Your task to perform on an android device: turn on translation in the chrome app Image 0: 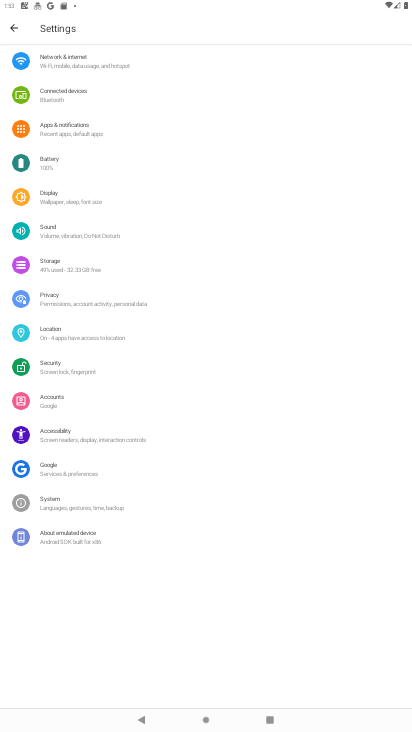
Step 0: press home button
Your task to perform on an android device: turn on translation in the chrome app Image 1: 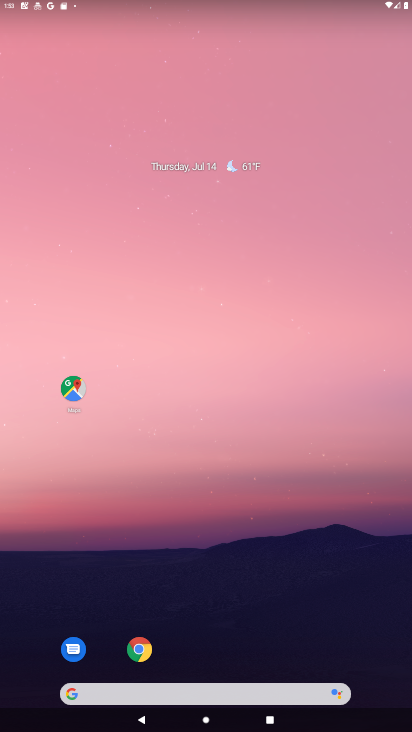
Step 1: drag from (224, 679) to (192, 130)
Your task to perform on an android device: turn on translation in the chrome app Image 2: 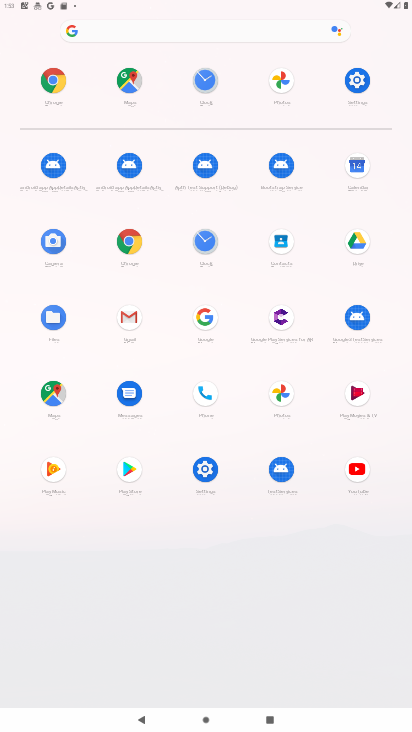
Step 2: click (120, 240)
Your task to perform on an android device: turn on translation in the chrome app Image 3: 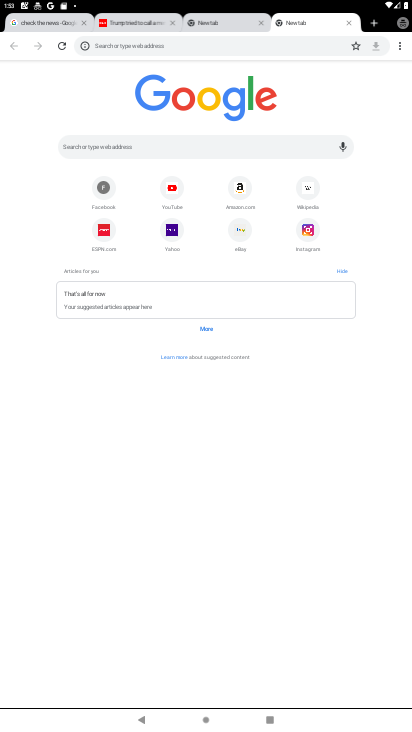
Step 3: click (394, 45)
Your task to perform on an android device: turn on translation in the chrome app Image 4: 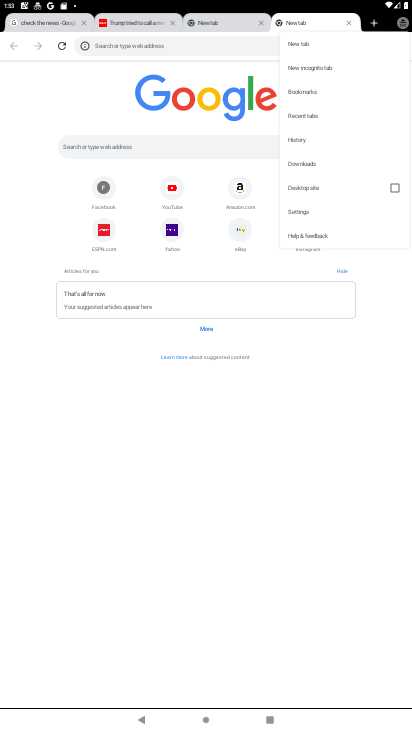
Step 4: click (316, 214)
Your task to perform on an android device: turn on translation in the chrome app Image 5: 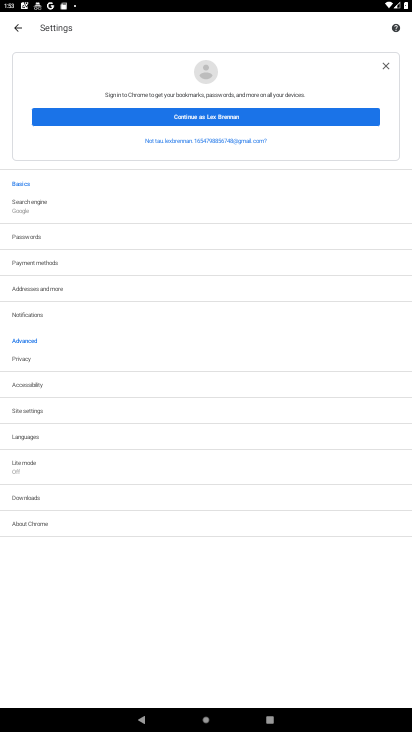
Step 5: click (29, 436)
Your task to perform on an android device: turn on translation in the chrome app Image 6: 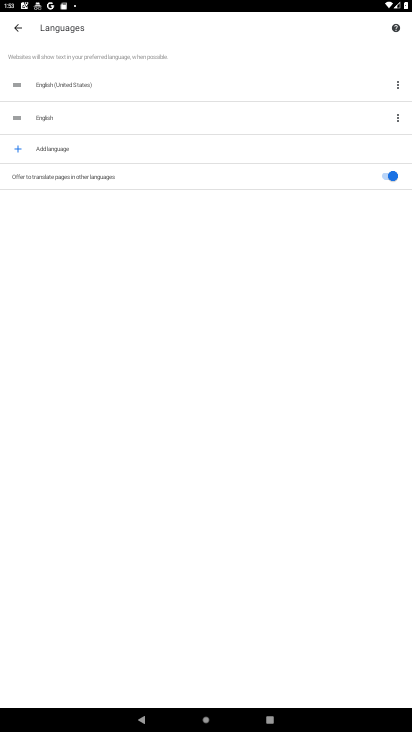
Step 6: task complete